Your task to perform on an android device: change notifications settings Image 0: 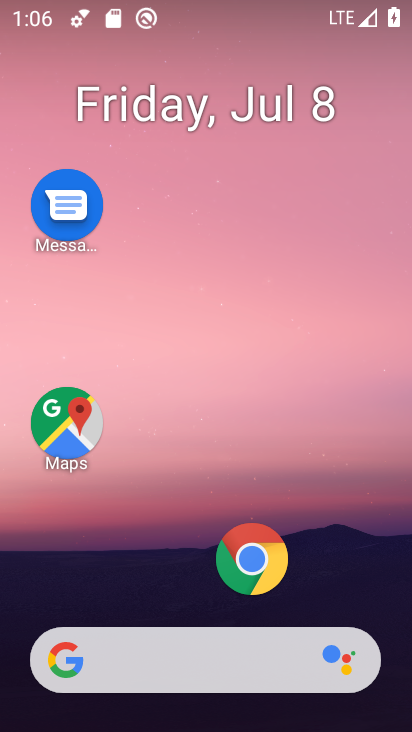
Step 0: drag from (186, 604) to (113, 83)
Your task to perform on an android device: change notifications settings Image 1: 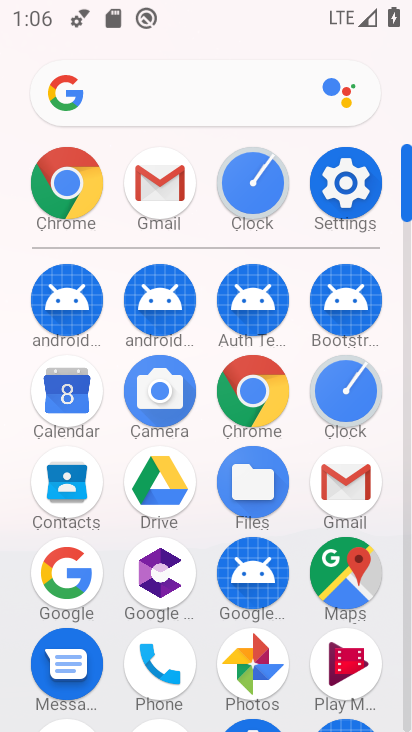
Step 1: click (338, 193)
Your task to perform on an android device: change notifications settings Image 2: 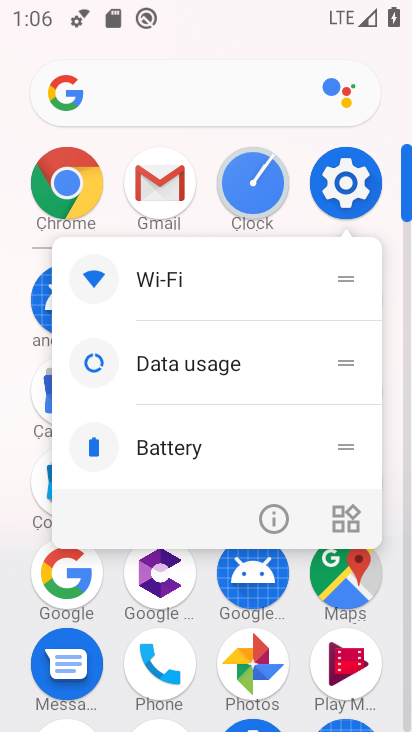
Step 2: click (389, 181)
Your task to perform on an android device: change notifications settings Image 3: 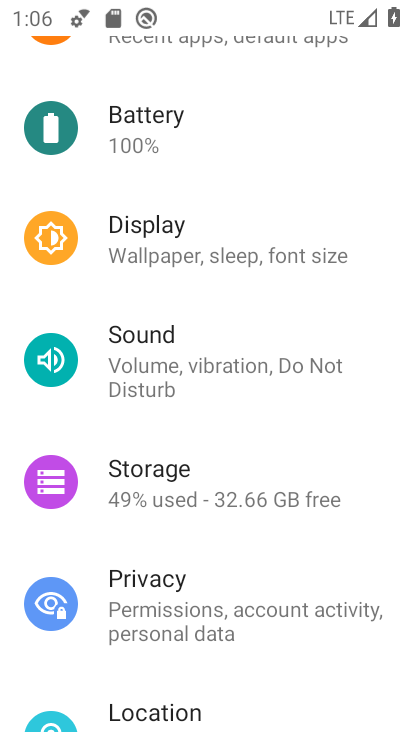
Step 3: drag from (279, 207) to (277, 536)
Your task to perform on an android device: change notifications settings Image 4: 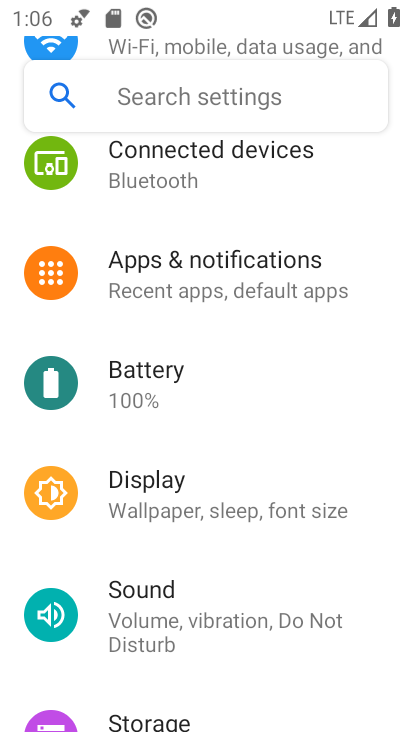
Step 4: click (244, 300)
Your task to perform on an android device: change notifications settings Image 5: 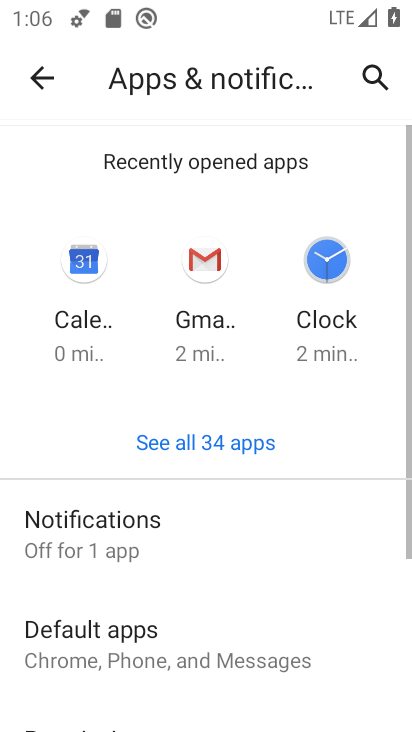
Step 5: click (210, 557)
Your task to perform on an android device: change notifications settings Image 6: 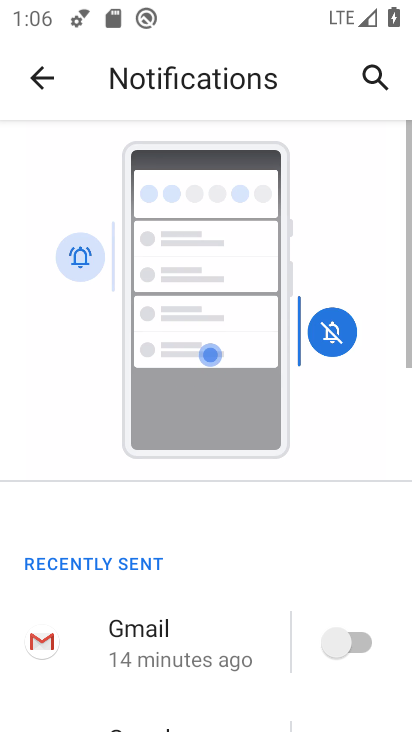
Step 6: drag from (210, 554) to (199, 64)
Your task to perform on an android device: change notifications settings Image 7: 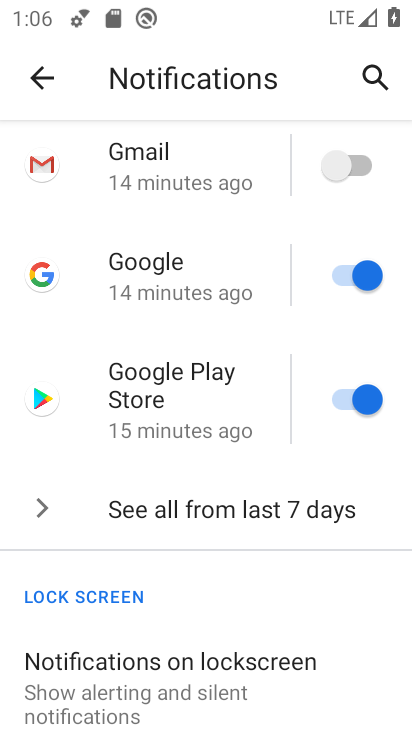
Step 7: click (203, 505)
Your task to perform on an android device: change notifications settings Image 8: 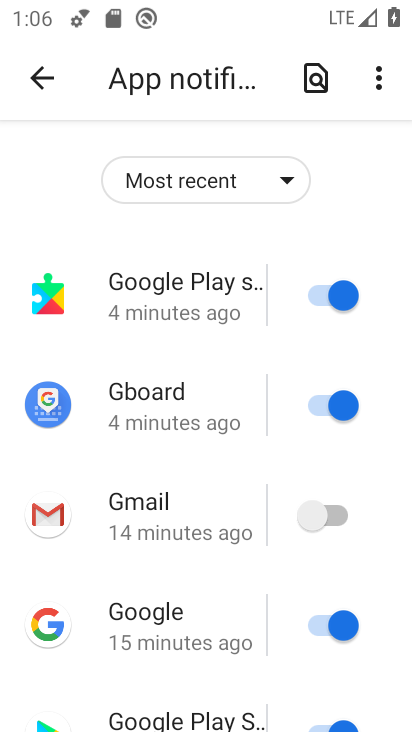
Step 8: click (216, 180)
Your task to perform on an android device: change notifications settings Image 9: 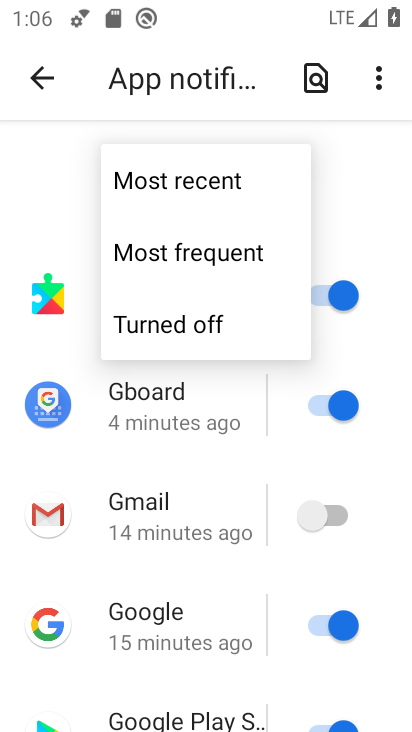
Step 9: click (242, 335)
Your task to perform on an android device: change notifications settings Image 10: 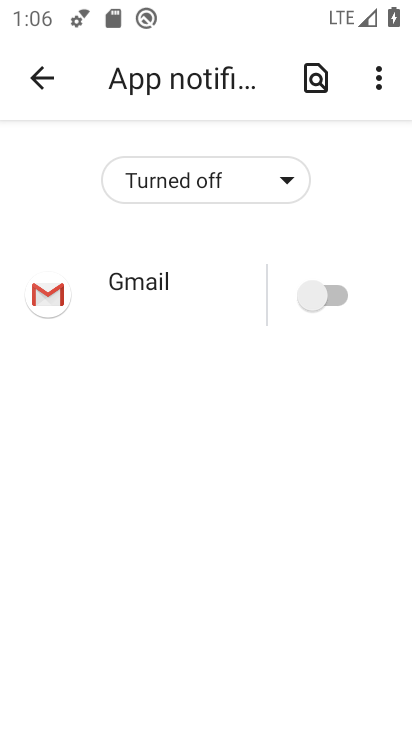
Step 10: task complete